Your task to perform on an android device: open device folders in google photos Image 0: 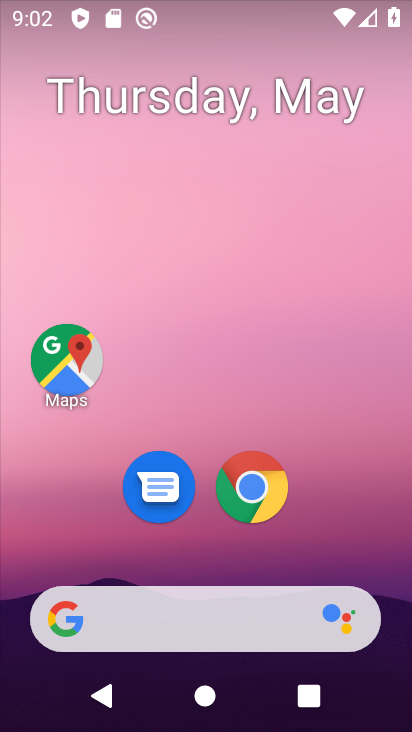
Step 0: drag from (191, 474) to (232, 142)
Your task to perform on an android device: open device folders in google photos Image 1: 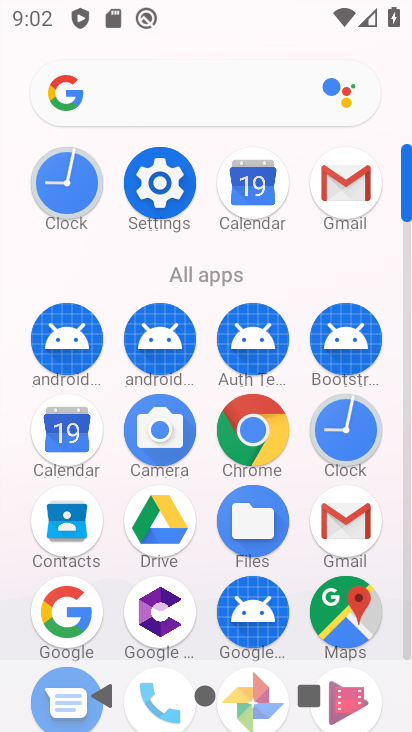
Step 1: drag from (265, 560) to (326, 164)
Your task to perform on an android device: open device folders in google photos Image 2: 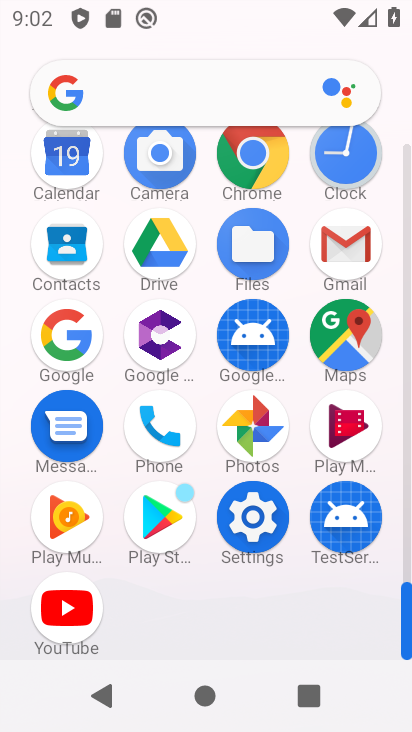
Step 2: click (262, 412)
Your task to perform on an android device: open device folders in google photos Image 3: 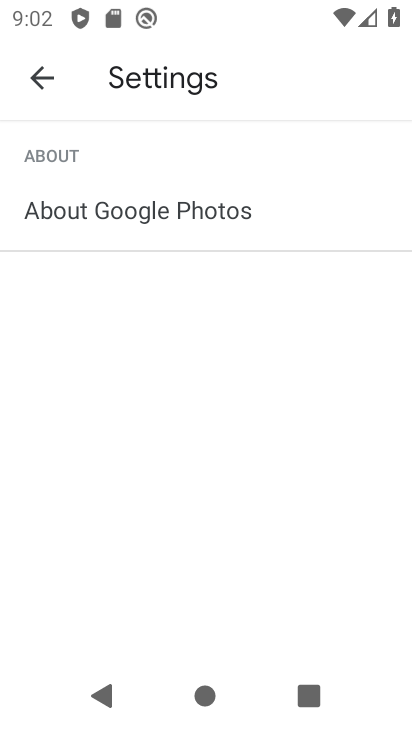
Step 3: click (37, 82)
Your task to perform on an android device: open device folders in google photos Image 4: 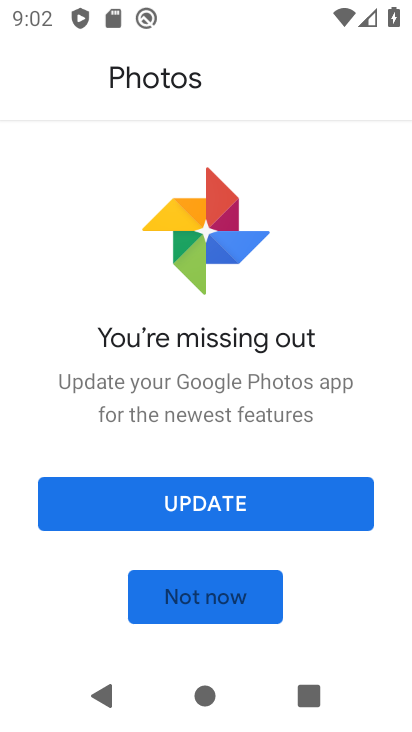
Step 4: click (173, 603)
Your task to perform on an android device: open device folders in google photos Image 5: 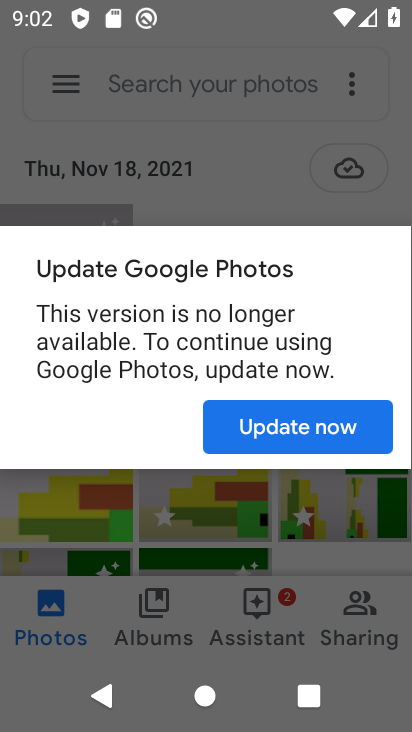
Step 5: click (301, 435)
Your task to perform on an android device: open device folders in google photos Image 6: 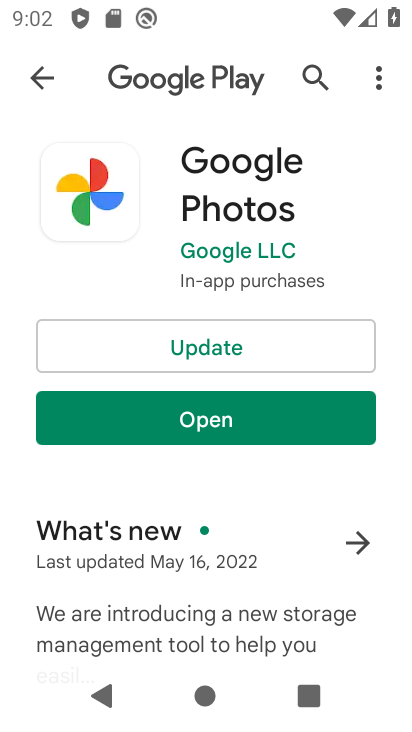
Step 6: click (202, 415)
Your task to perform on an android device: open device folders in google photos Image 7: 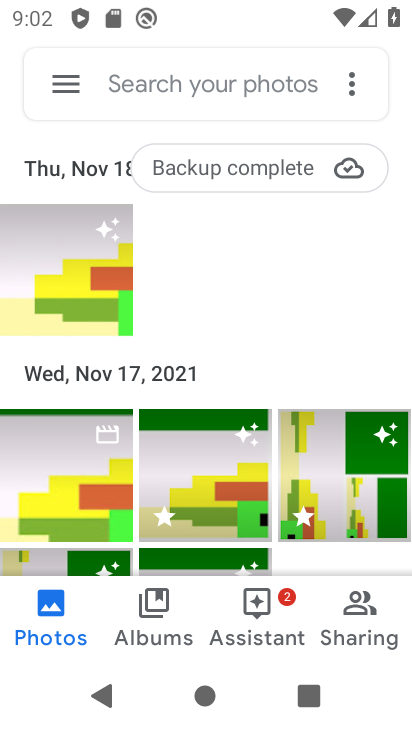
Step 7: click (61, 93)
Your task to perform on an android device: open device folders in google photos Image 8: 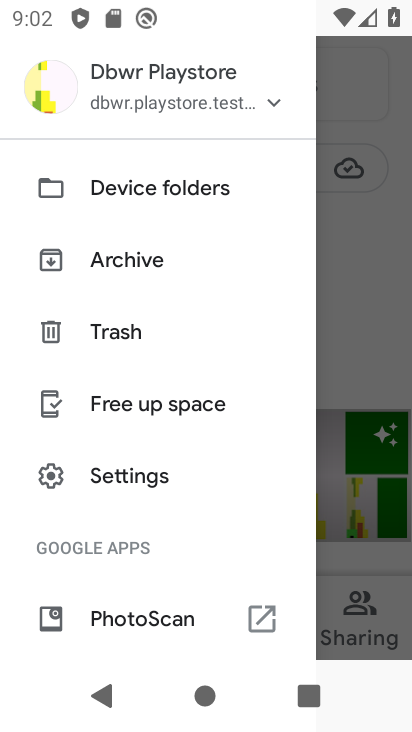
Step 8: click (145, 210)
Your task to perform on an android device: open device folders in google photos Image 9: 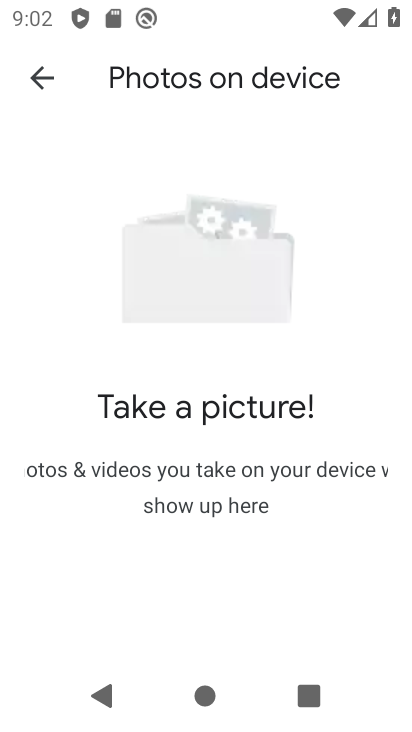
Step 9: task complete